Your task to perform on an android device: Do I have any events this weekend? Image 0: 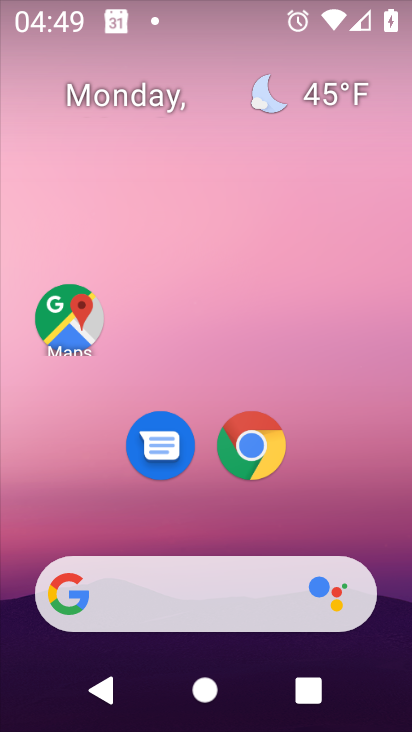
Step 0: drag from (199, 514) to (134, 37)
Your task to perform on an android device: Do I have any events this weekend? Image 1: 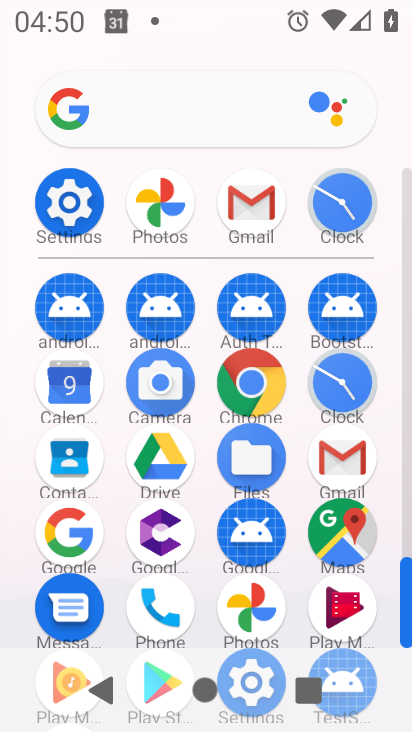
Step 1: click (57, 385)
Your task to perform on an android device: Do I have any events this weekend? Image 2: 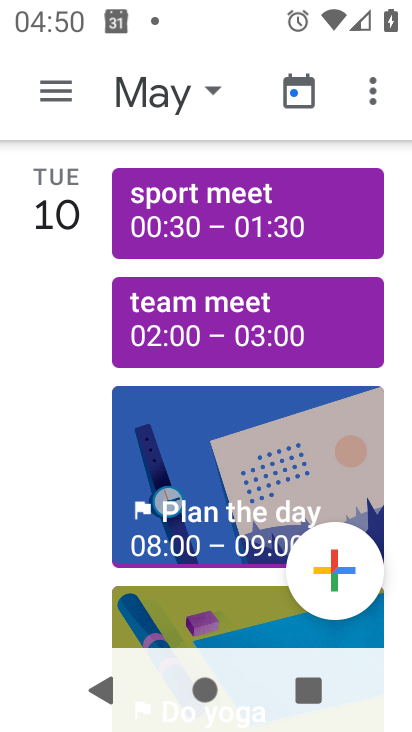
Step 2: click (133, 99)
Your task to perform on an android device: Do I have any events this weekend? Image 3: 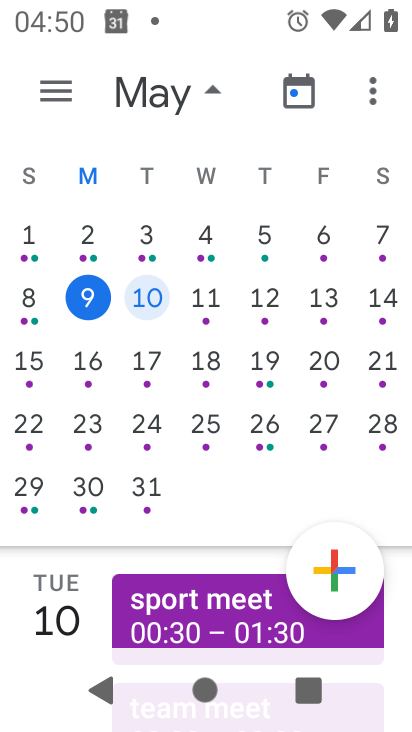
Step 3: click (369, 299)
Your task to perform on an android device: Do I have any events this weekend? Image 4: 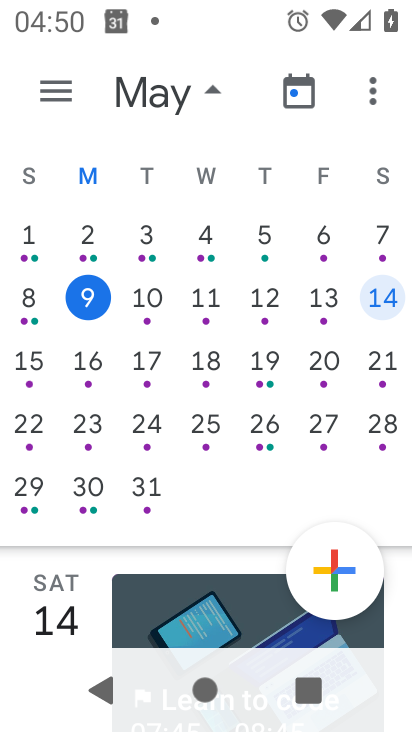
Step 4: task complete